Your task to perform on an android device: See recent photos Image 0: 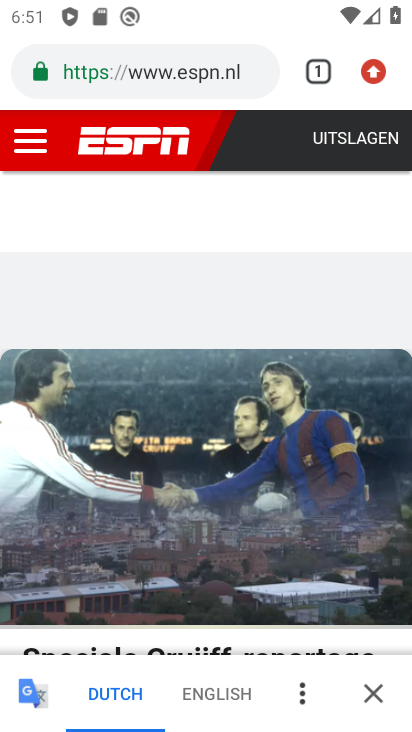
Step 0: press home button
Your task to perform on an android device: See recent photos Image 1: 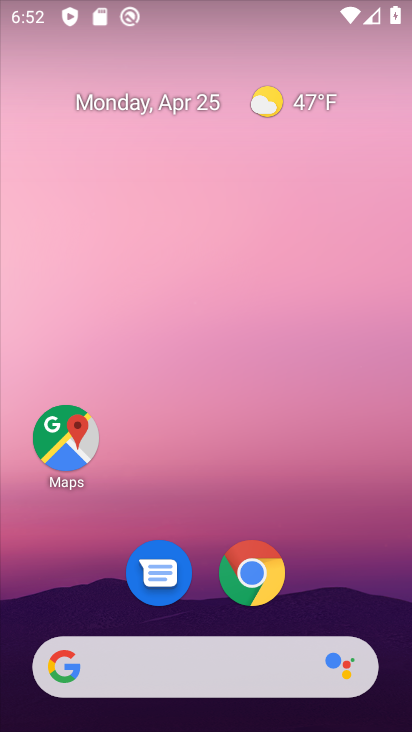
Step 1: drag from (331, 597) to (279, 57)
Your task to perform on an android device: See recent photos Image 2: 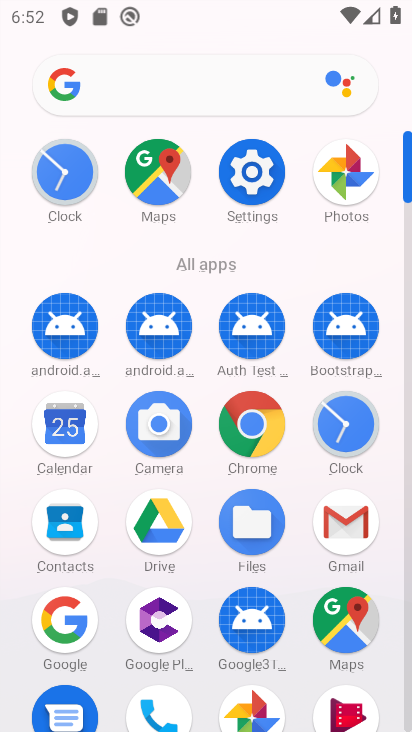
Step 2: click (253, 704)
Your task to perform on an android device: See recent photos Image 3: 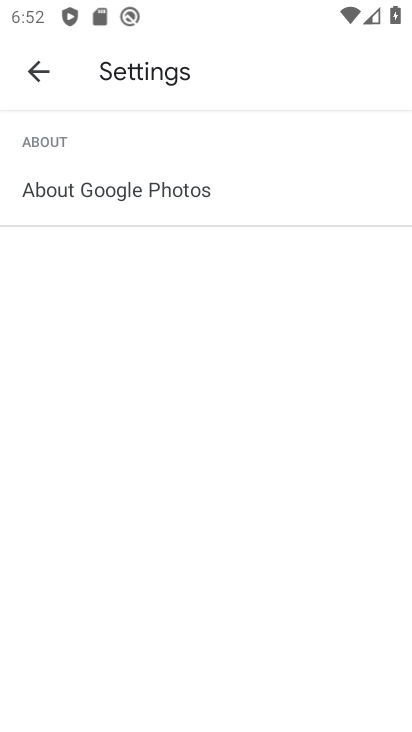
Step 3: click (40, 59)
Your task to perform on an android device: See recent photos Image 4: 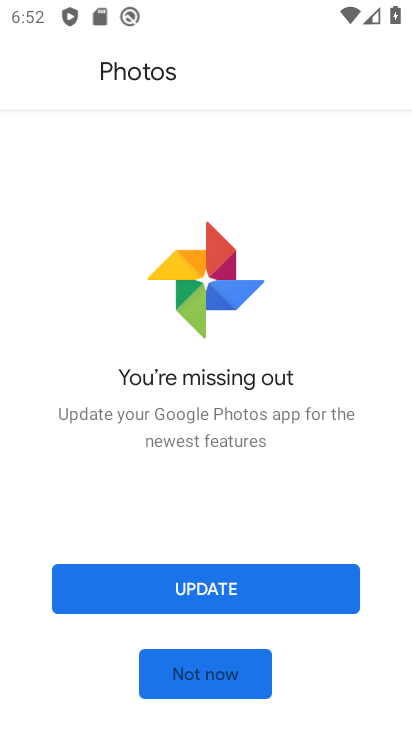
Step 4: click (189, 577)
Your task to perform on an android device: See recent photos Image 5: 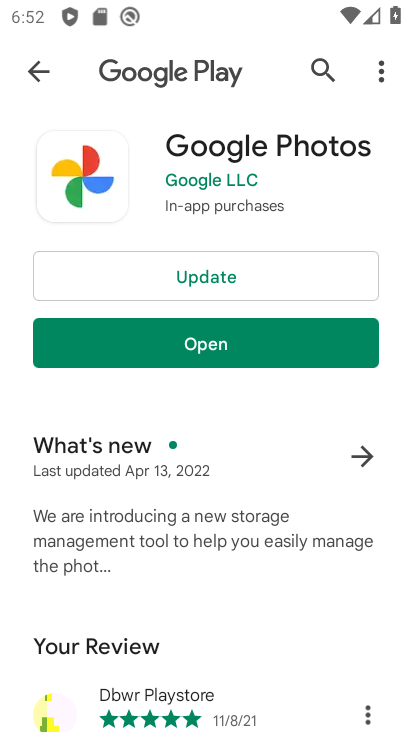
Step 5: click (211, 279)
Your task to perform on an android device: See recent photos Image 6: 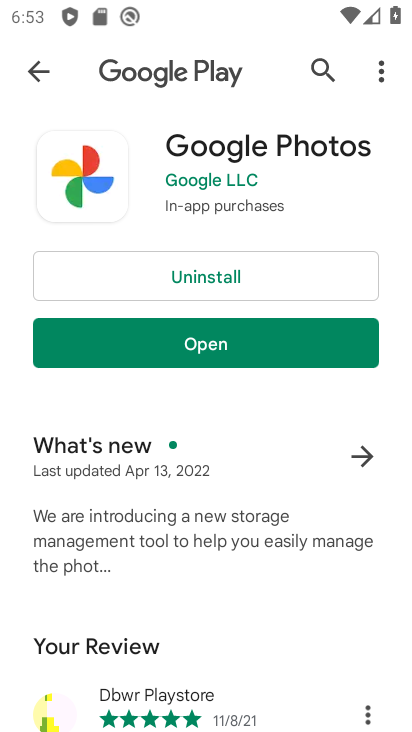
Step 6: click (253, 342)
Your task to perform on an android device: See recent photos Image 7: 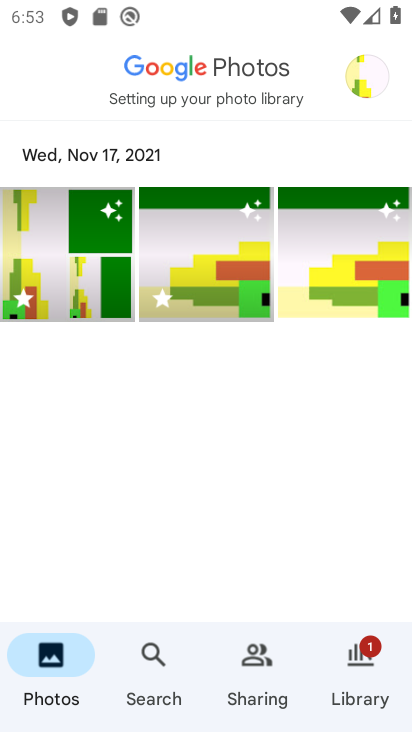
Step 7: click (146, 650)
Your task to perform on an android device: See recent photos Image 8: 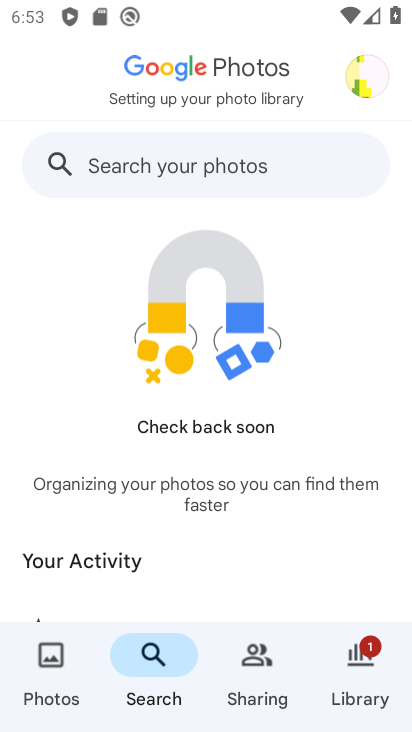
Step 8: click (171, 159)
Your task to perform on an android device: See recent photos Image 9: 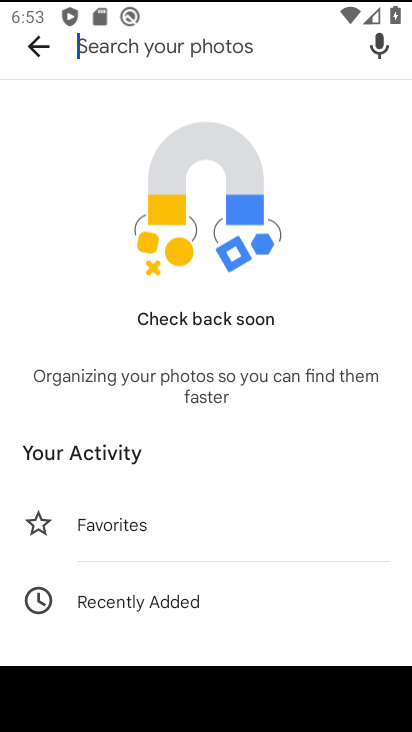
Step 9: type "recent"
Your task to perform on an android device: See recent photos Image 10: 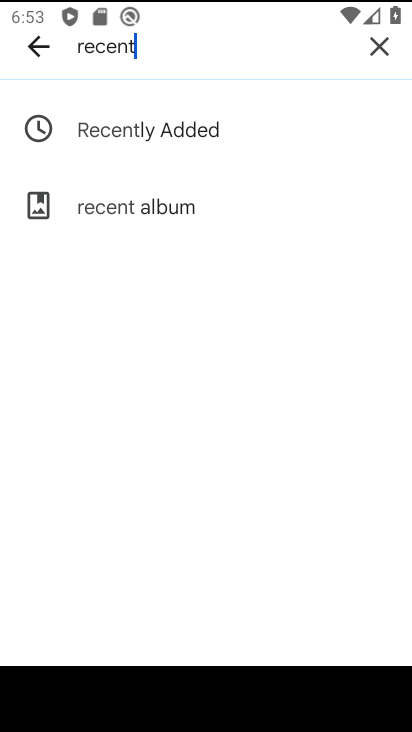
Step 10: click (212, 133)
Your task to perform on an android device: See recent photos Image 11: 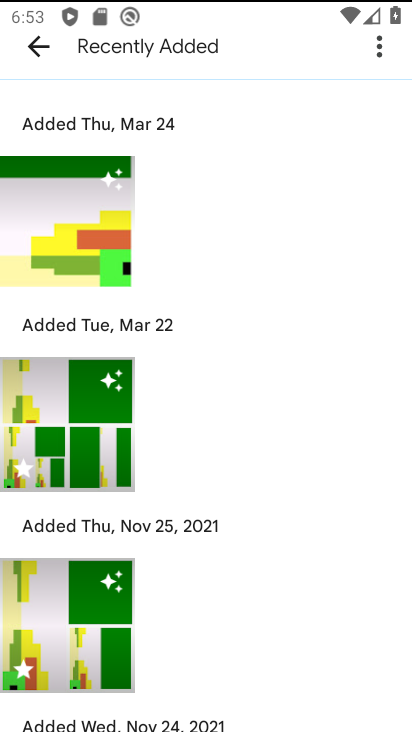
Step 11: task complete